Your task to perform on an android device: Open Google Chrome Image 0: 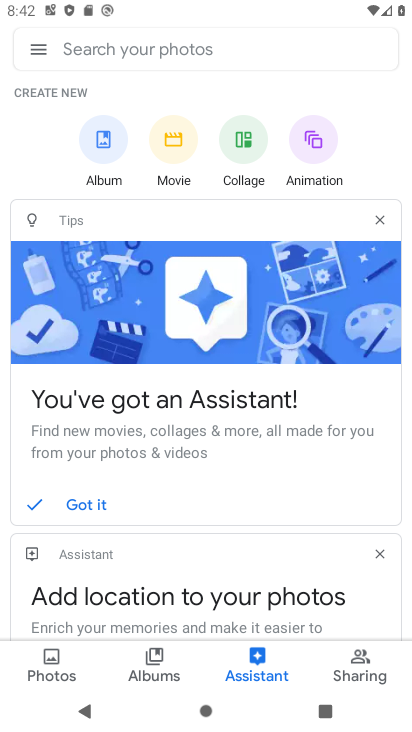
Step 0: press home button
Your task to perform on an android device: Open Google Chrome Image 1: 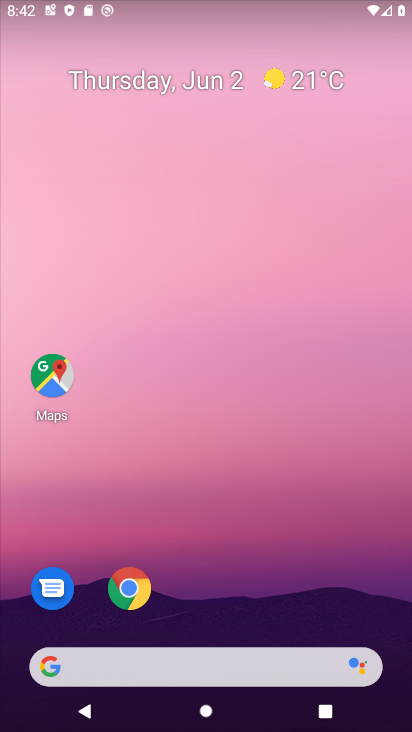
Step 1: click (141, 595)
Your task to perform on an android device: Open Google Chrome Image 2: 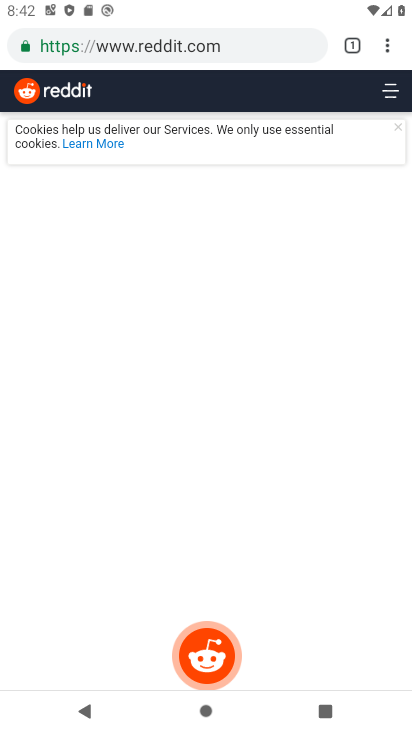
Step 2: task complete